Your task to perform on an android device: Search for 35 best books of all time Image 0: 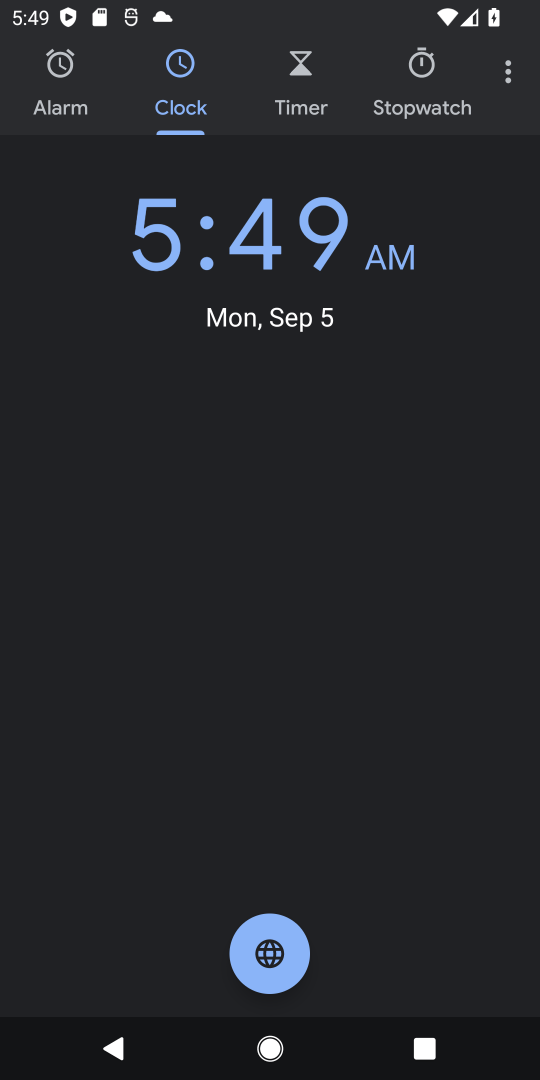
Step 0: press home button
Your task to perform on an android device: Search for 35 best books of all time Image 1: 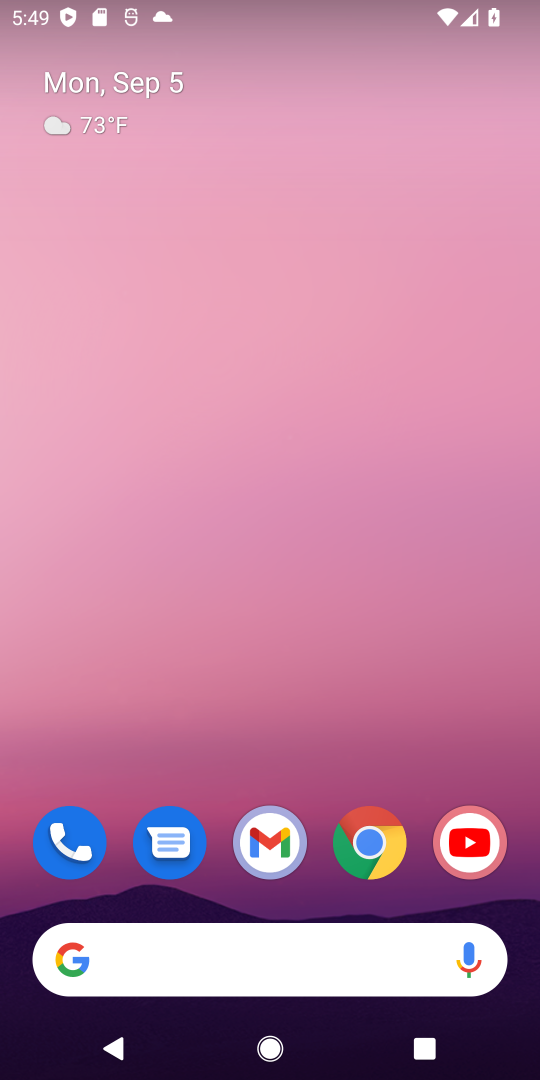
Step 1: click (370, 849)
Your task to perform on an android device: Search for 35 best books of all time Image 2: 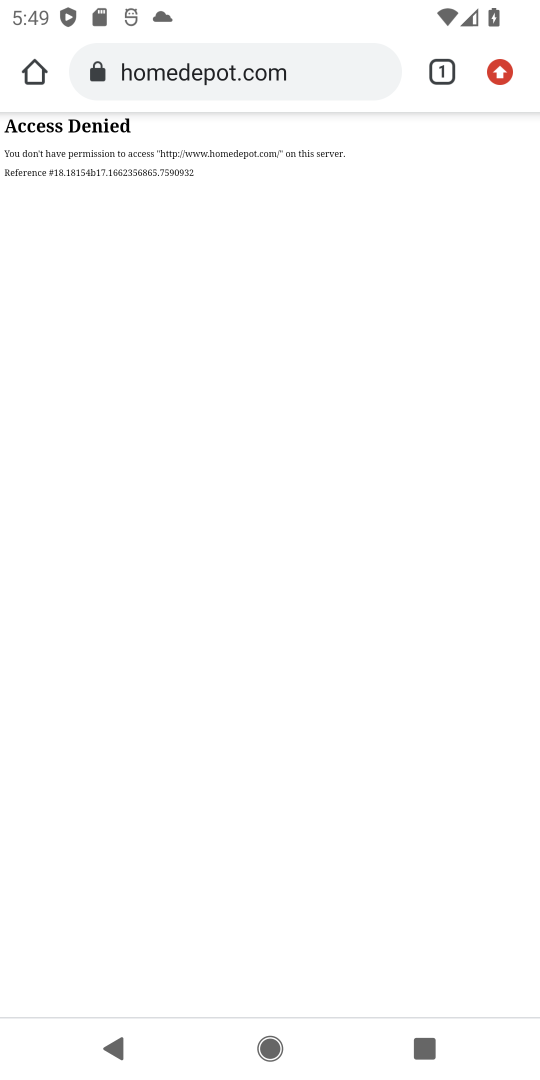
Step 2: click (288, 80)
Your task to perform on an android device: Search for 35 best books of all time Image 3: 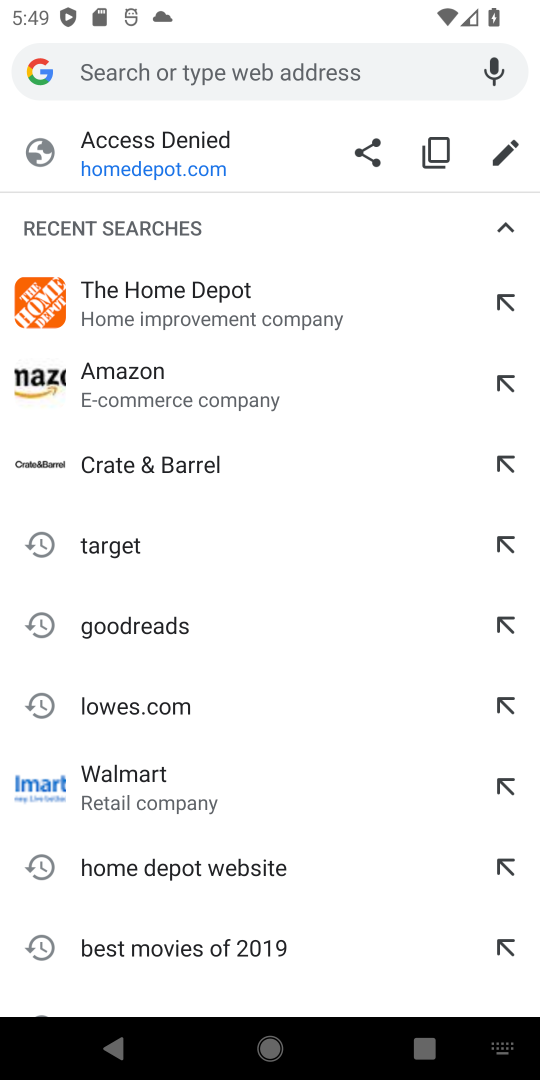
Step 3: type "35 best books of all time"
Your task to perform on an android device: Search for 35 best books of all time Image 4: 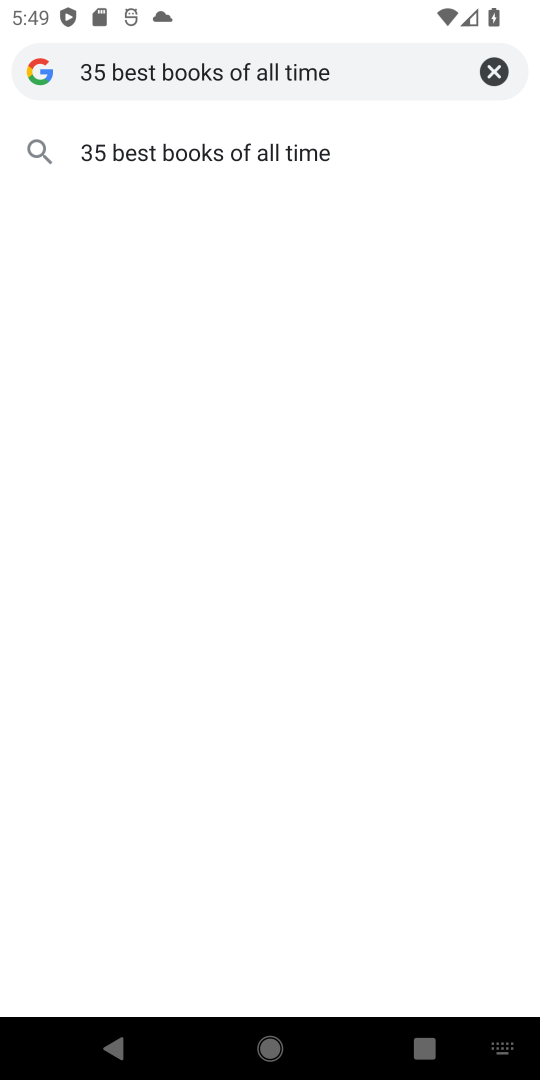
Step 4: click (193, 160)
Your task to perform on an android device: Search for 35 best books of all time Image 5: 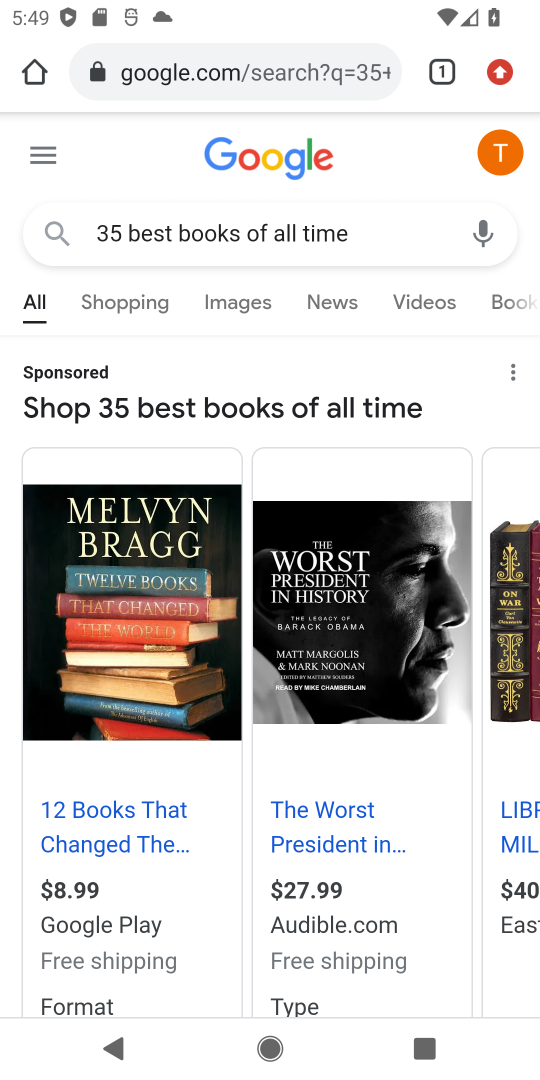
Step 5: drag from (328, 980) to (391, 395)
Your task to perform on an android device: Search for 35 best books of all time Image 6: 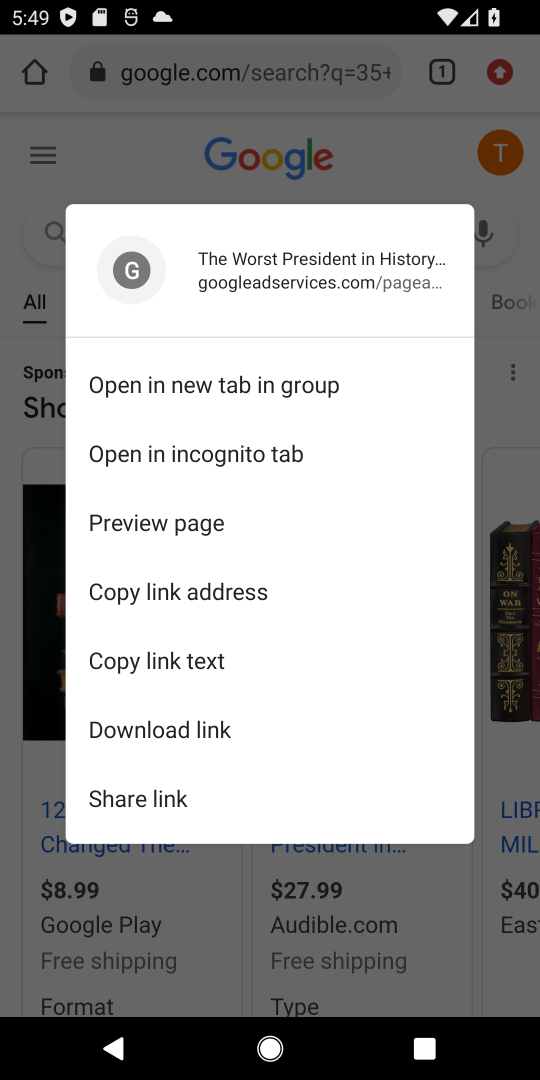
Step 6: click (510, 432)
Your task to perform on an android device: Search for 35 best books of all time Image 7: 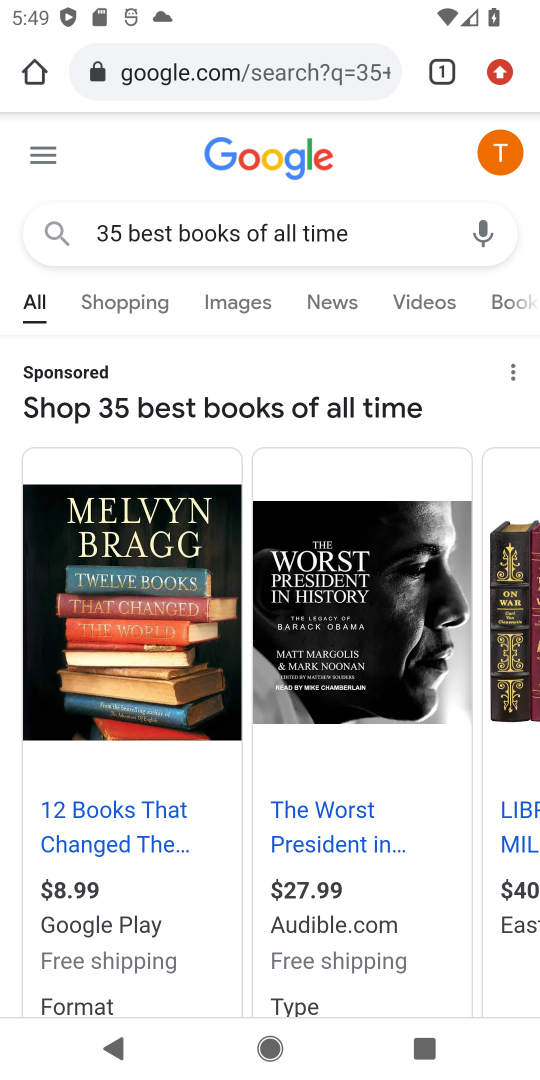
Step 7: drag from (279, 301) to (324, 148)
Your task to perform on an android device: Search for 35 best books of all time Image 8: 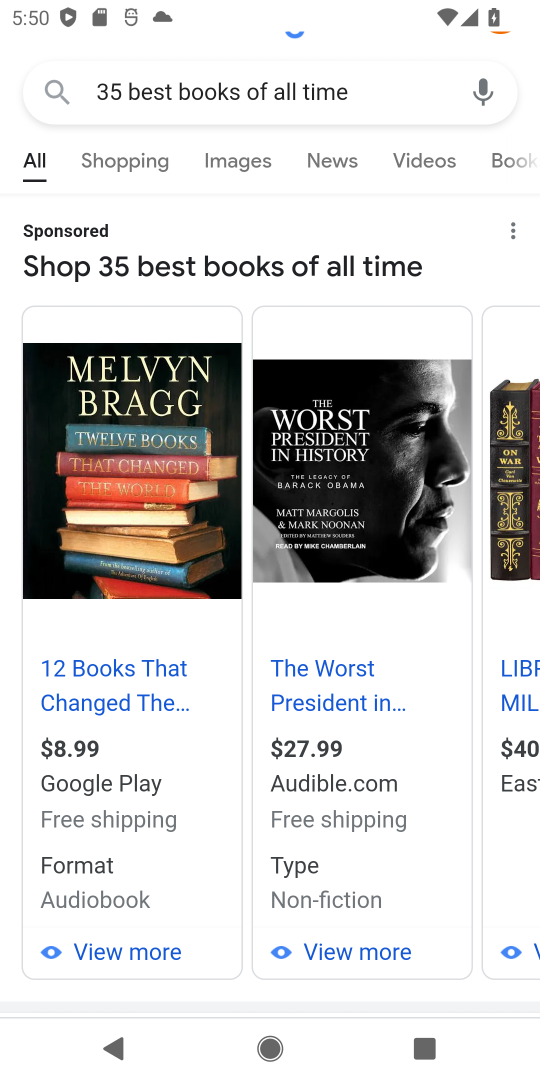
Step 8: drag from (238, 982) to (370, 457)
Your task to perform on an android device: Search for 35 best books of all time Image 9: 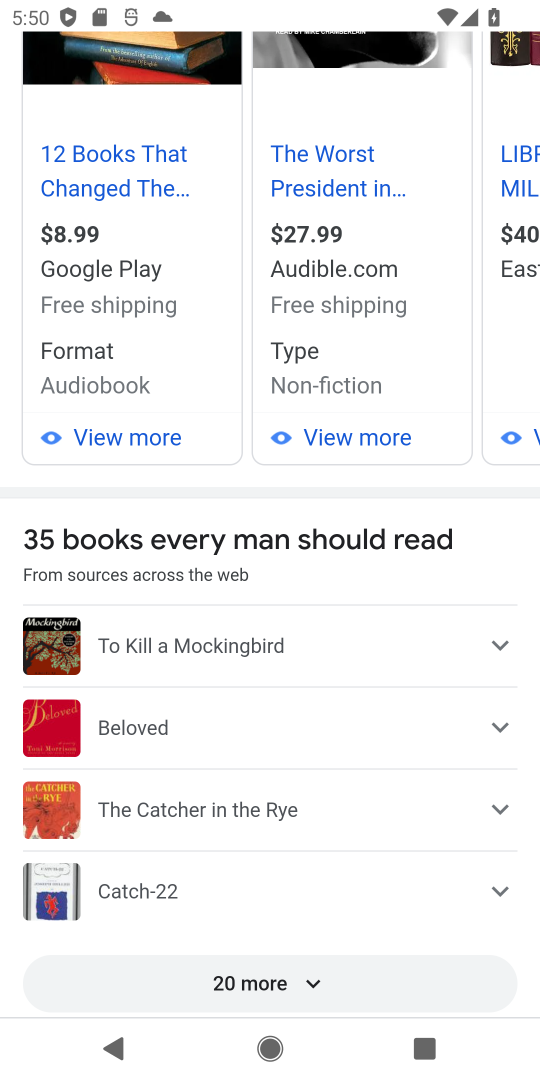
Step 9: click (250, 984)
Your task to perform on an android device: Search for 35 best books of all time Image 10: 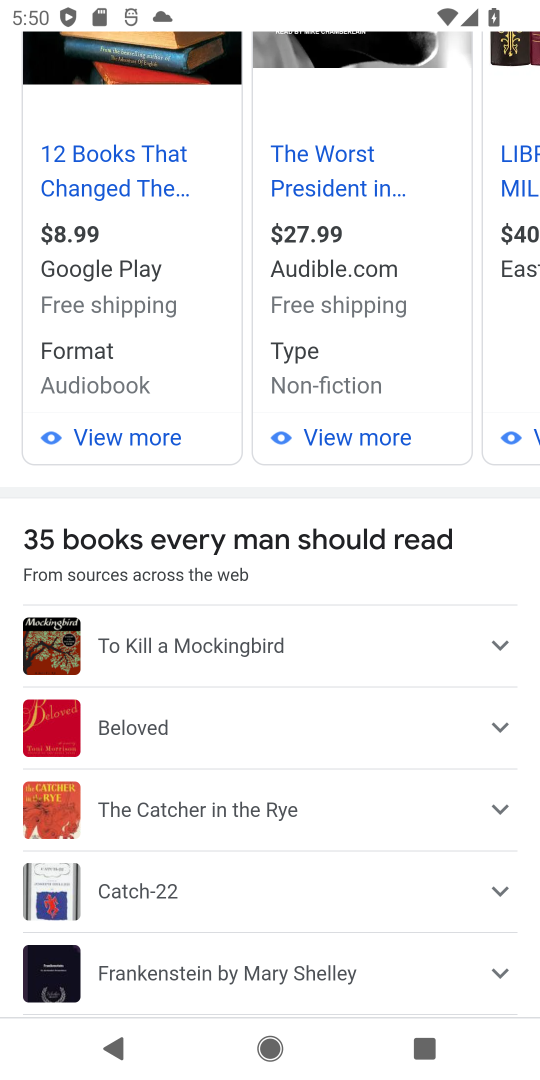
Step 10: task complete